Your task to perform on an android device: change the clock style Image 0: 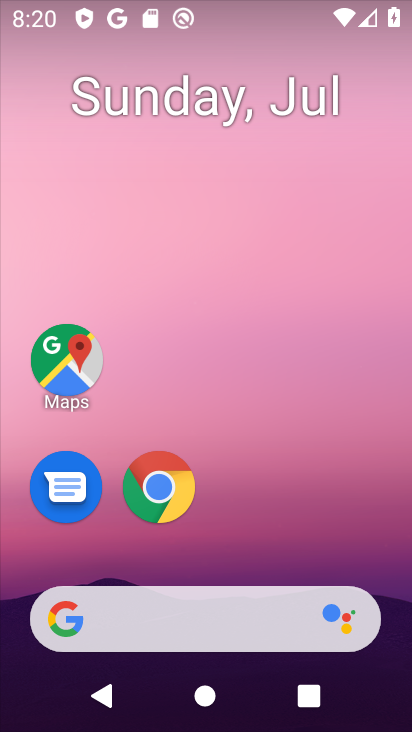
Step 0: drag from (237, 541) to (245, 12)
Your task to perform on an android device: change the clock style Image 1: 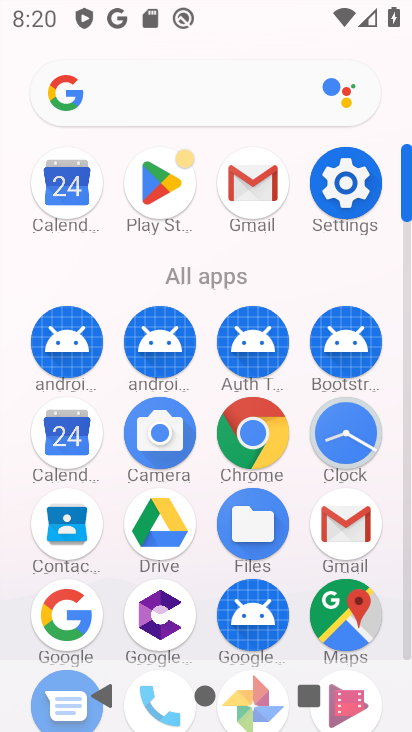
Step 1: click (337, 426)
Your task to perform on an android device: change the clock style Image 2: 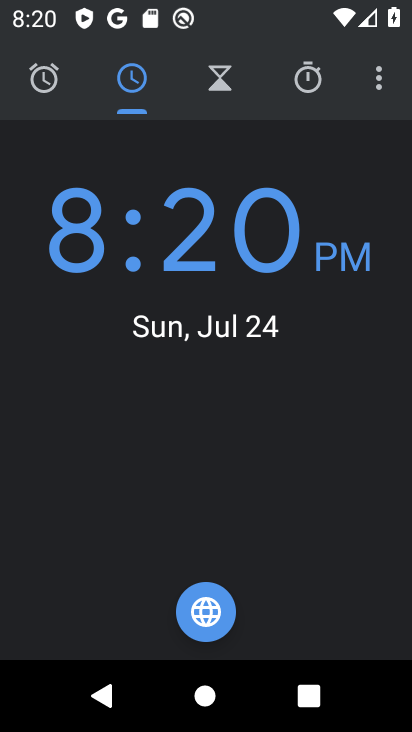
Step 2: click (381, 63)
Your task to perform on an android device: change the clock style Image 3: 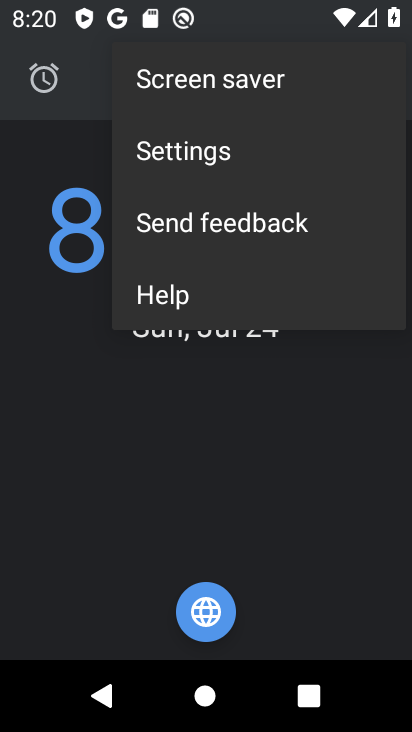
Step 3: click (194, 149)
Your task to perform on an android device: change the clock style Image 4: 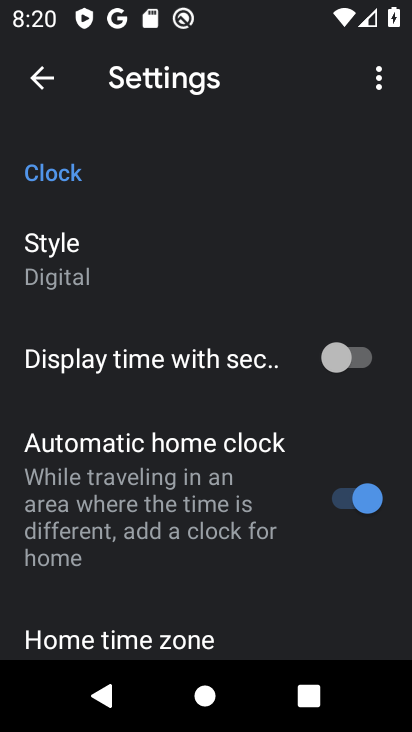
Step 4: click (77, 272)
Your task to perform on an android device: change the clock style Image 5: 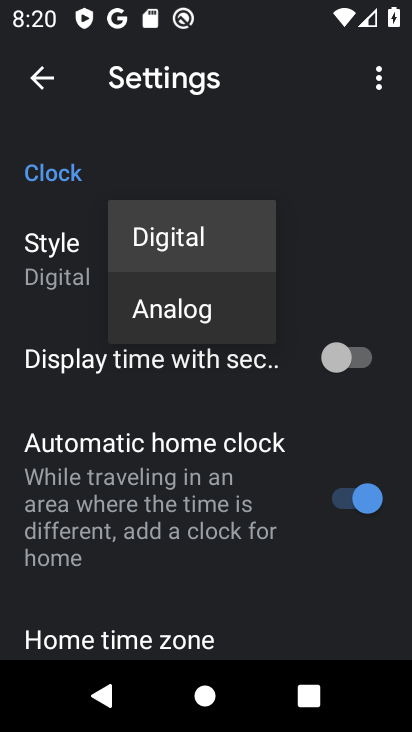
Step 5: click (198, 313)
Your task to perform on an android device: change the clock style Image 6: 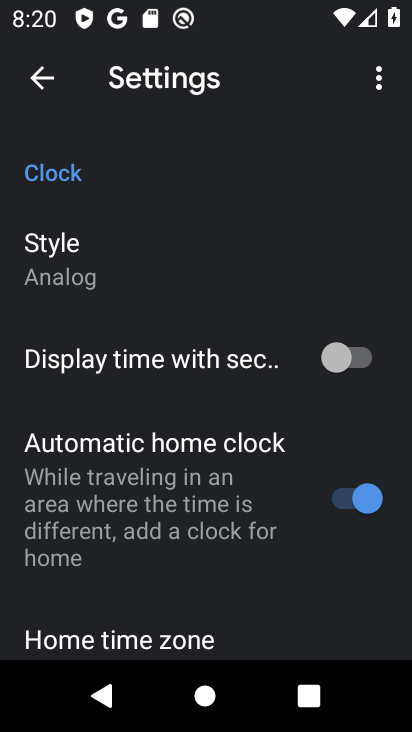
Step 6: task complete